Your task to perform on an android device: Go to eBay Image 0: 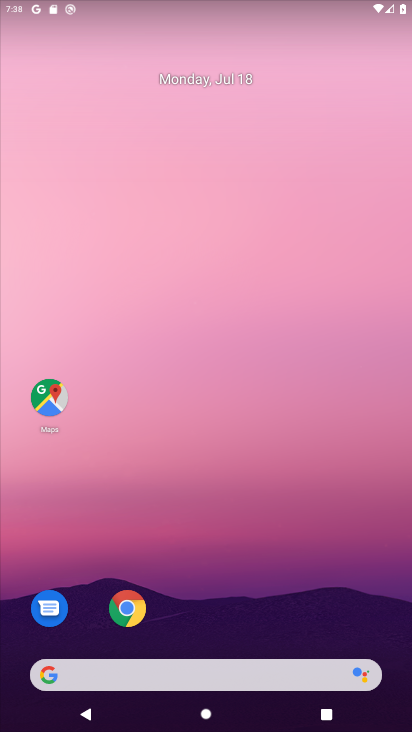
Step 0: drag from (212, 631) to (299, 22)
Your task to perform on an android device: Go to eBay Image 1: 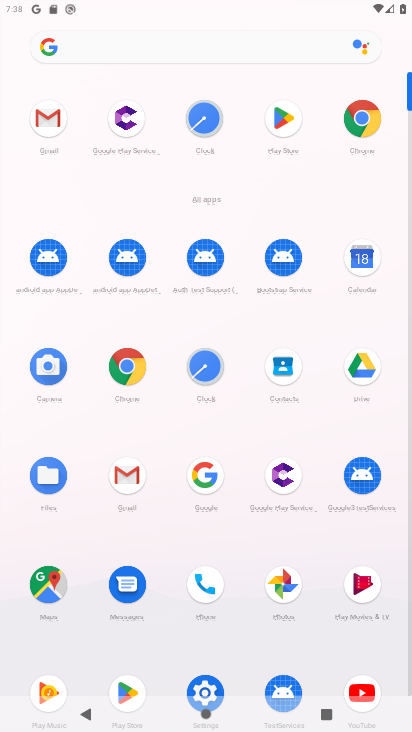
Step 1: click (131, 375)
Your task to perform on an android device: Go to eBay Image 2: 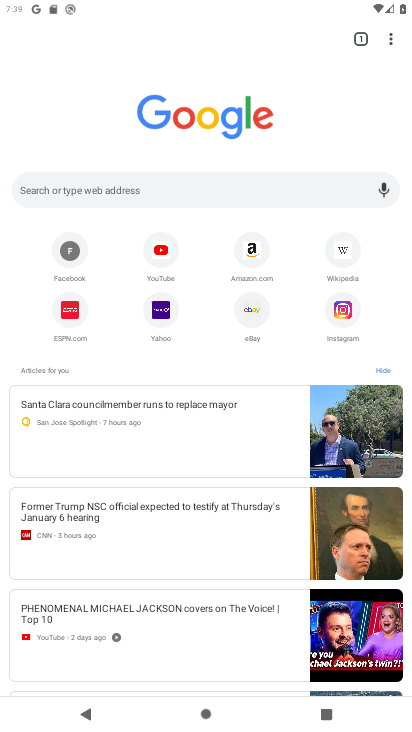
Step 2: click (252, 324)
Your task to perform on an android device: Go to eBay Image 3: 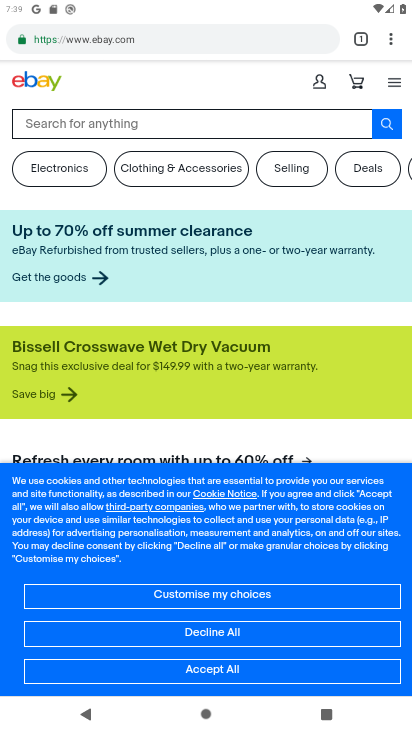
Step 3: task complete